Your task to perform on an android device: visit the assistant section in the google photos Image 0: 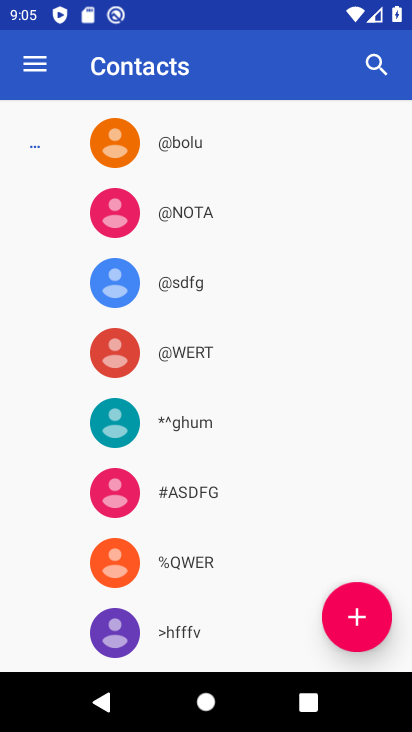
Step 0: press home button
Your task to perform on an android device: visit the assistant section in the google photos Image 1: 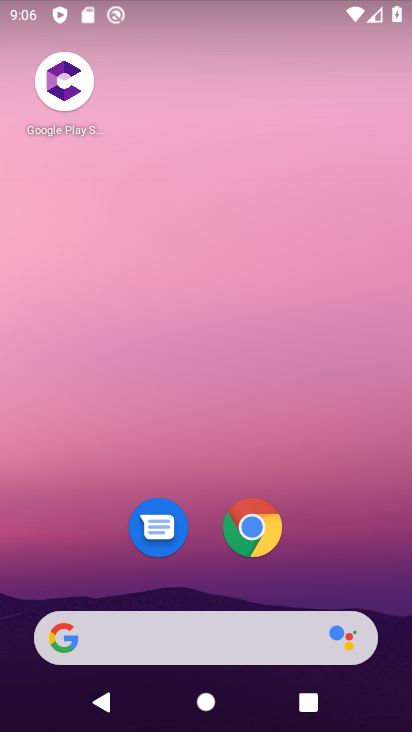
Step 1: drag from (327, 581) to (271, 178)
Your task to perform on an android device: visit the assistant section in the google photos Image 2: 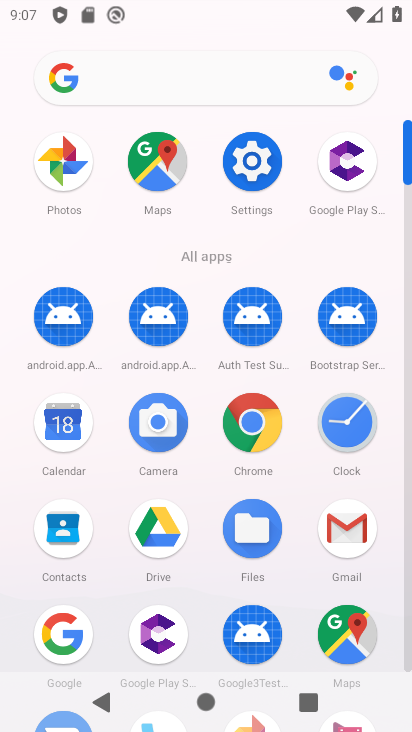
Step 2: drag from (287, 570) to (296, 283)
Your task to perform on an android device: visit the assistant section in the google photos Image 3: 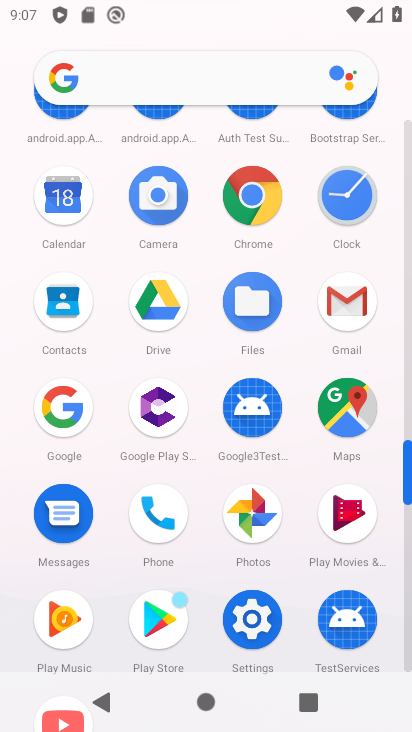
Step 3: click (245, 513)
Your task to perform on an android device: visit the assistant section in the google photos Image 4: 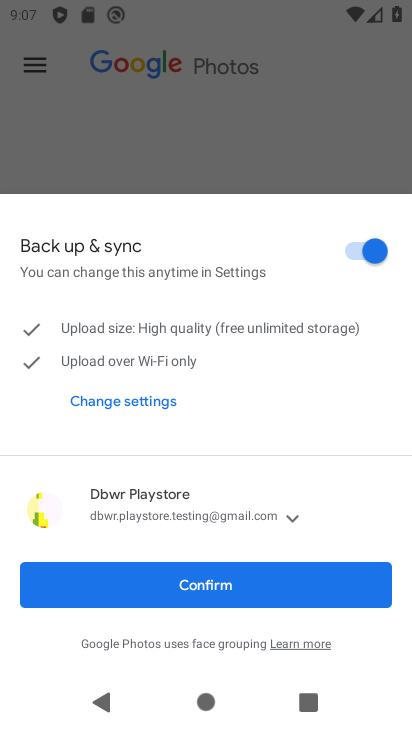
Step 4: click (260, 577)
Your task to perform on an android device: visit the assistant section in the google photos Image 5: 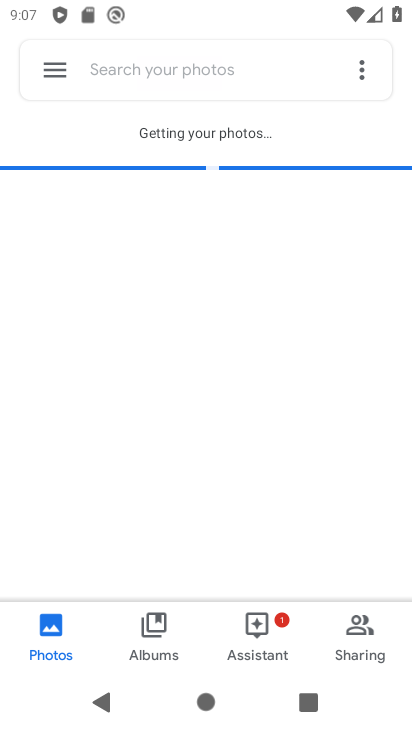
Step 5: click (261, 643)
Your task to perform on an android device: visit the assistant section in the google photos Image 6: 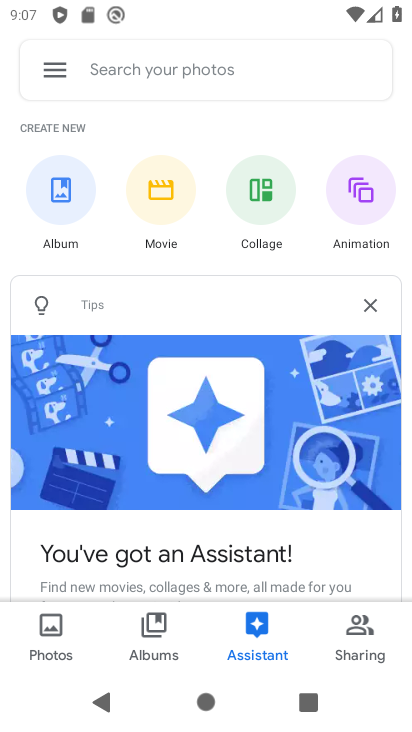
Step 6: task complete